Your task to perform on an android device: Open Maps and search for coffee Image 0: 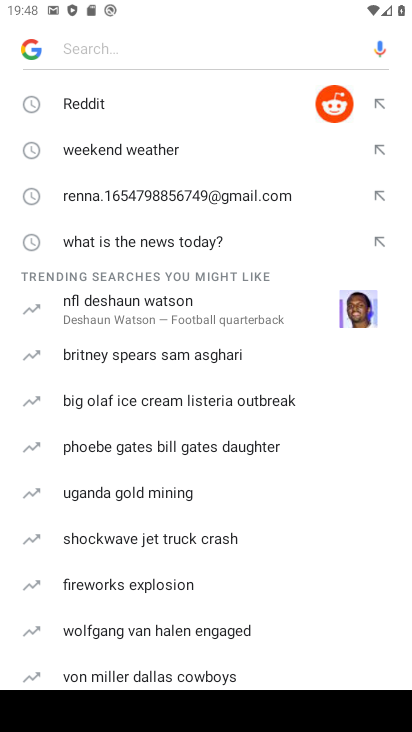
Step 0: press home button
Your task to perform on an android device: Open Maps and search for coffee Image 1: 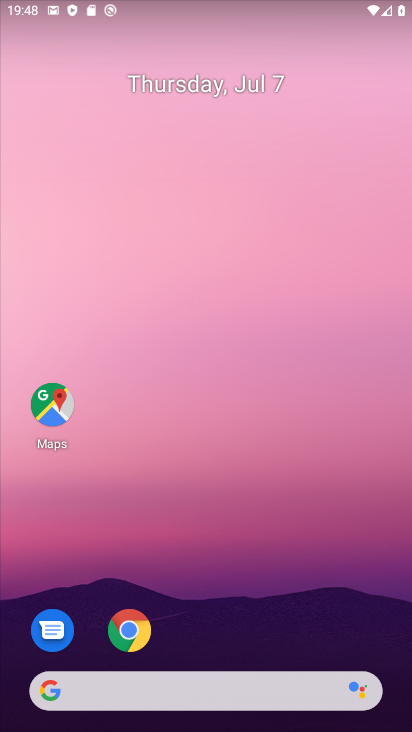
Step 1: press home button
Your task to perform on an android device: Open Maps and search for coffee Image 2: 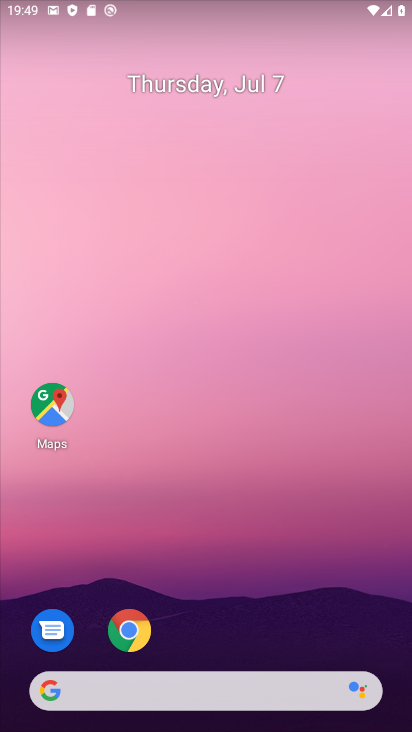
Step 2: click (49, 396)
Your task to perform on an android device: Open Maps and search for coffee Image 3: 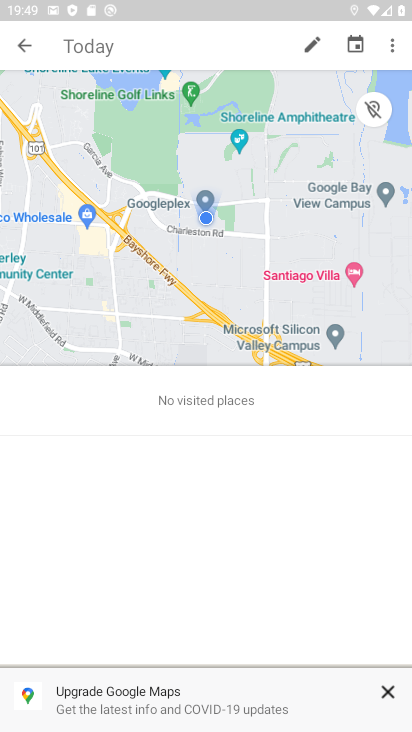
Step 3: click (31, 44)
Your task to perform on an android device: Open Maps and search for coffee Image 4: 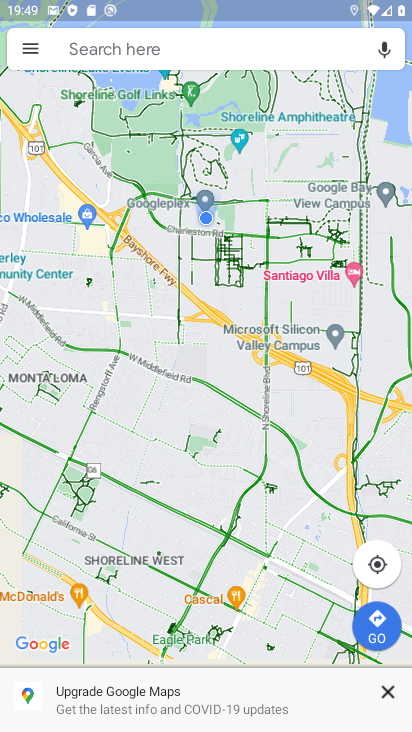
Step 4: click (145, 48)
Your task to perform on an android device: Open Maps and search for coffee Image 5: 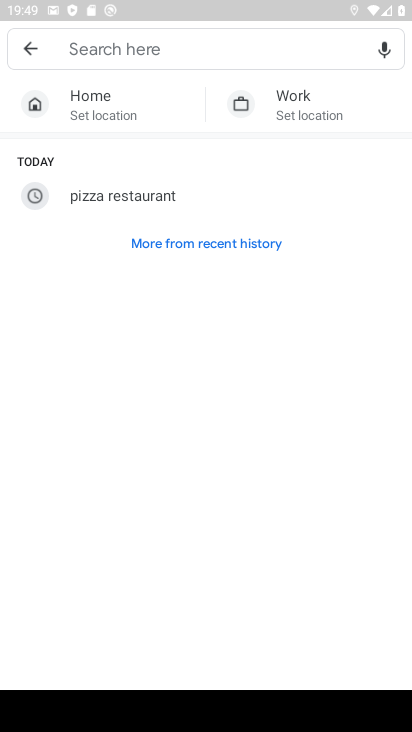
Step 5: type "coffee"
Your task to perform on an android device: Open Maps and search for coffee Image 6: 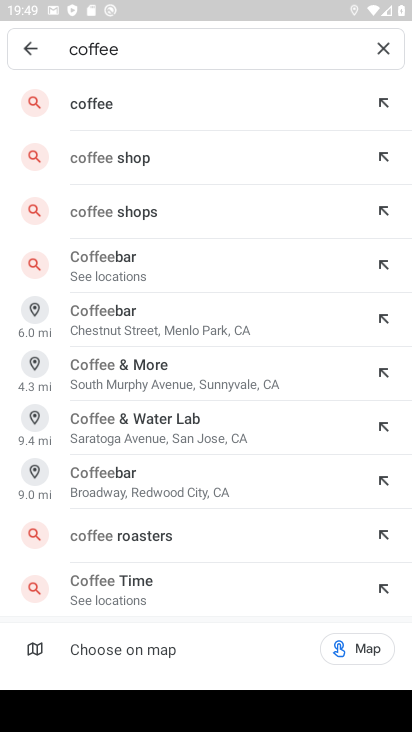
Step 6: click (292, 104)
Your task to perform on an android device: Open Maps and search for coffee Image 7: 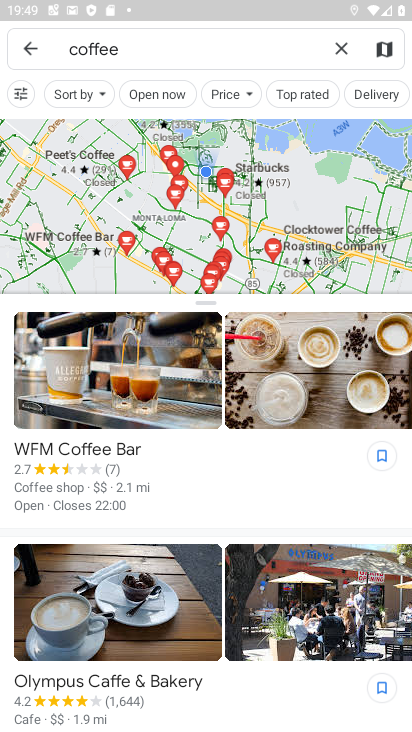
Step 7: task complete